Your task to perform on an android device: turn on showing notifications on the lock screen Image 0: 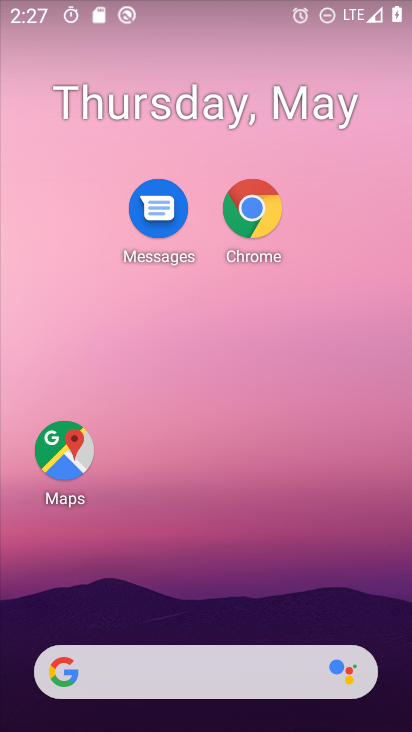
Step 0: drag from (212, 601) to (219, 109)
Your task to perform on an android device: turn on showing notifications on the lock screen Image 1: 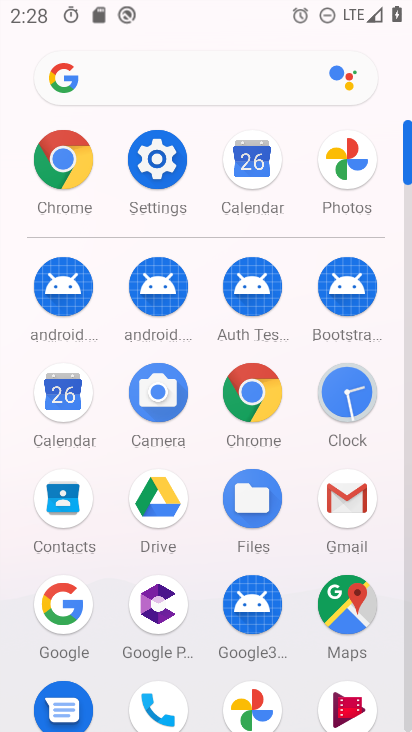
Step 1: click (164, 165)
Your task to perform on an android device: turn on showing notifications on the lock screen Image 2: 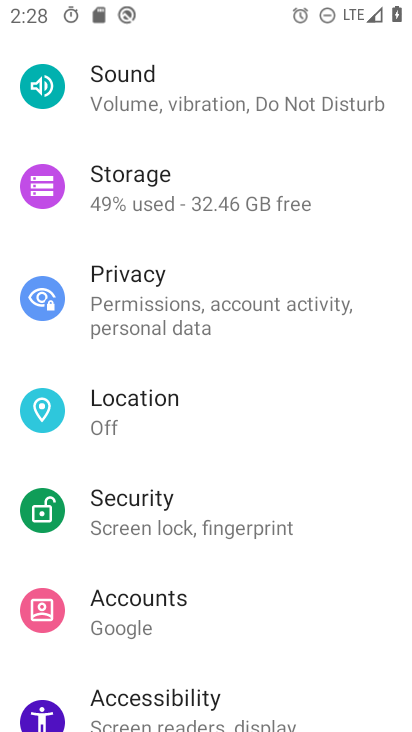
Step 2: drag from (231, 184) to (245, 559)
Your task to perform on an android device: turn on showing notifications on the lock screen Image 3: 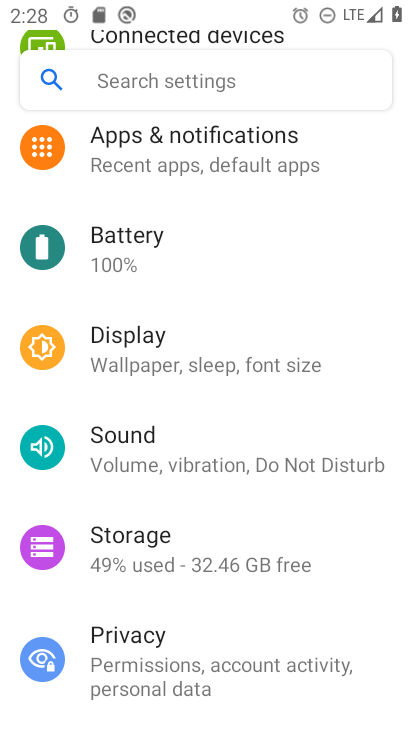
Step 3: click (151, 170)
Your task to perform on an android device: turn on showing notifications on the lock screen Image 4: 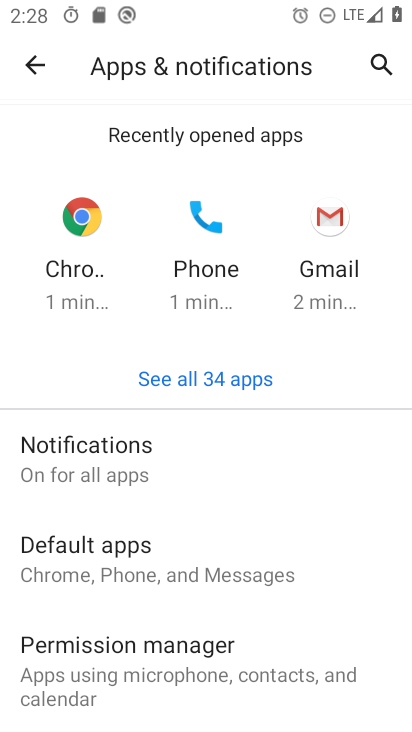
Step 4: click (102, 474)
Your task to perform on an android device: turn on showing notifications on the lock screen Image 5: 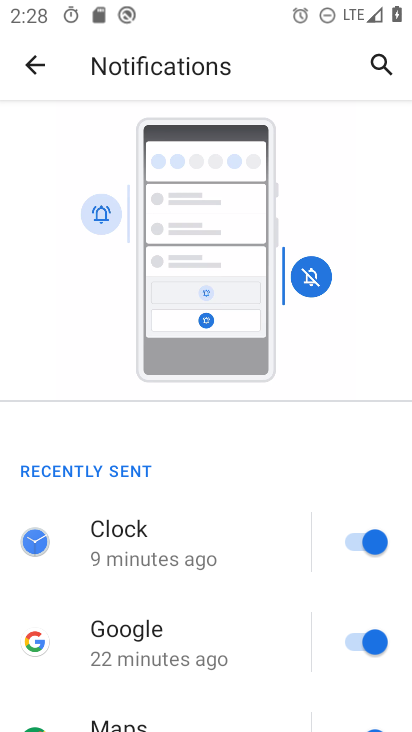
Step 5: drag from (172, 624) to (192, 278)
Your task to perform on an android device: turn on showing notifications on the lock screen Image 6: 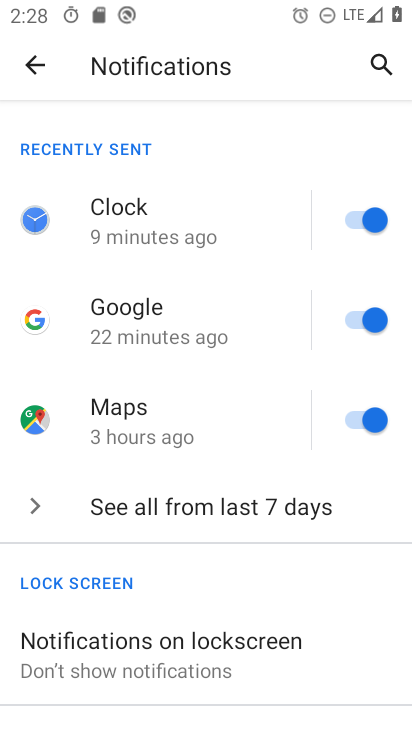
Step 6: drag from (182, 636) to (198, 374)
Your task to perform on an android device: turn on showing notifications on the lock screen Image 7: 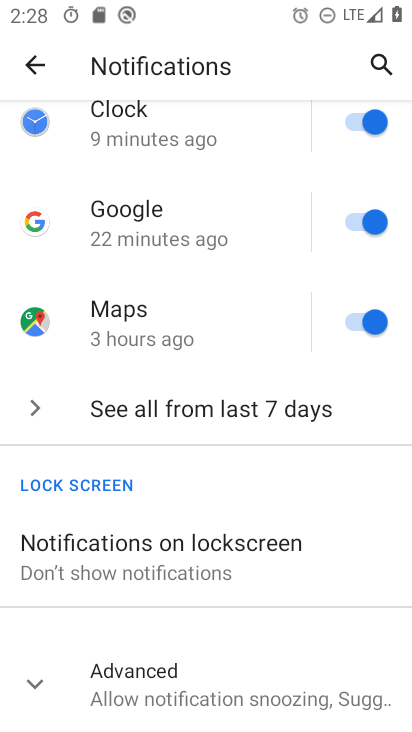
Step 7: drag from (188, 700) to (259, 410)
Your task to perform on an android device: turn on showing notifications on the lock screen Image 8: 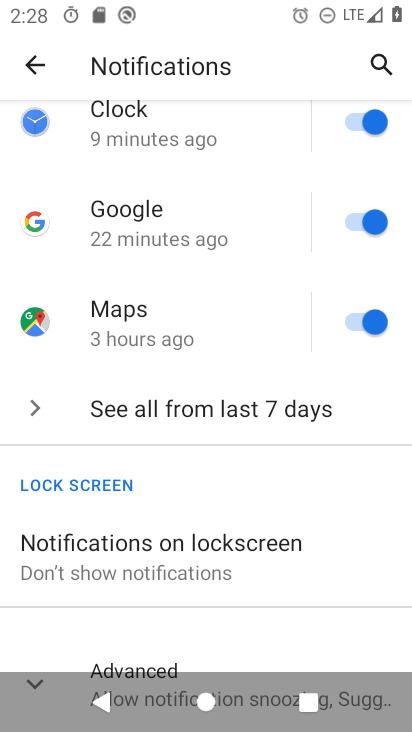
Step 8: click (154, 566)
Your task to perform on an android device: turn on showing notifications on the lock screen Image 9: 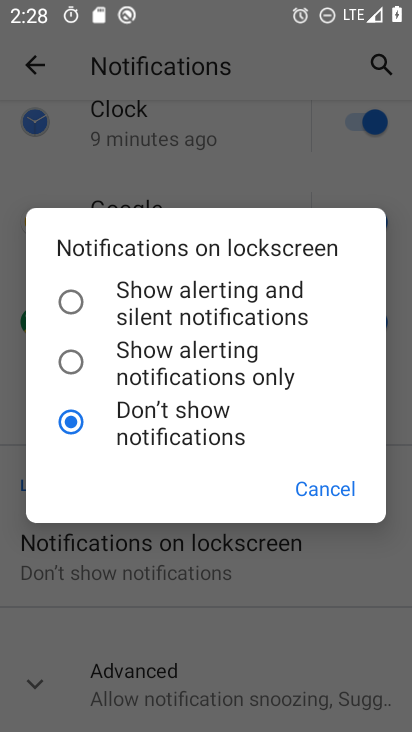
Step 9: click (78, 306)
Your task to perform on an android device: turn on showing notifications on the lock screen Image 10: 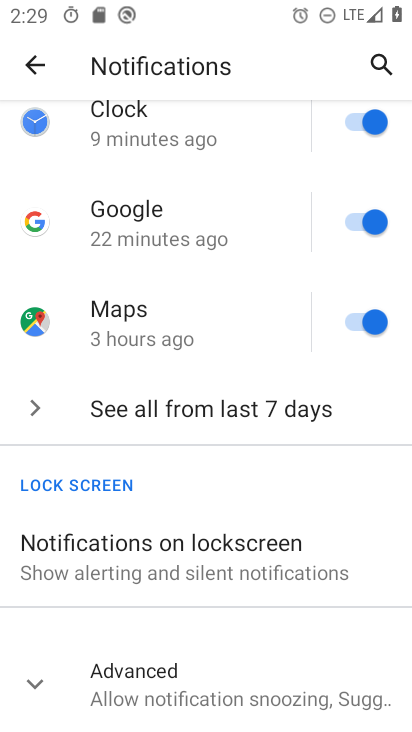
Step 10: task complete